Your task to perform on an android device: turn pop-ups on in chrome Image 0: 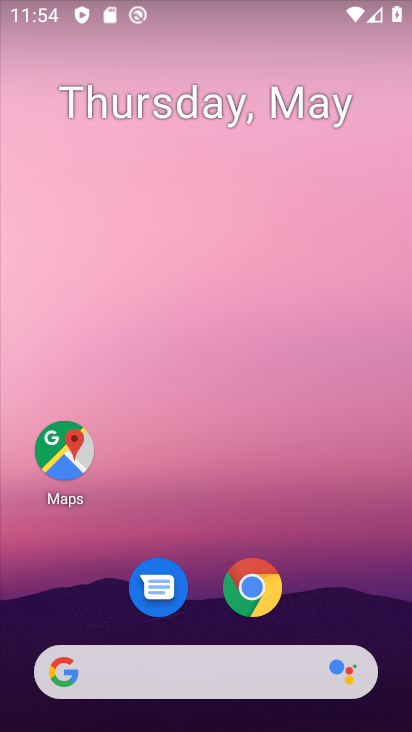
Step 0: click (256, 581)
Your task to perform on an android device: turn pop-ups on in chrome Image 1: 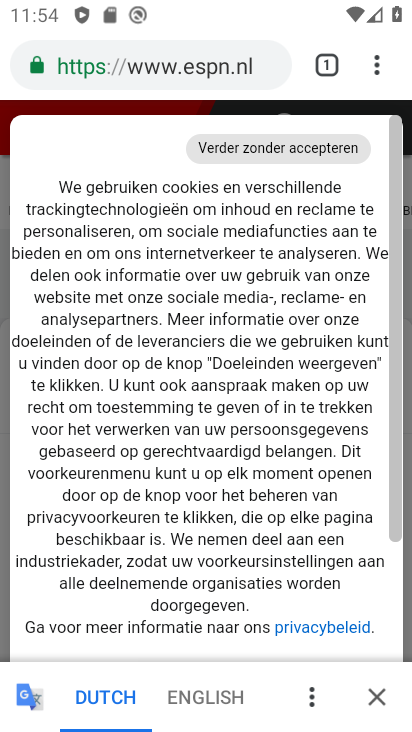
Step 1: drag from (377, 66) to (161, 632)
Your task to perform on an android device: turn pop-ups on in chrome Image 2: 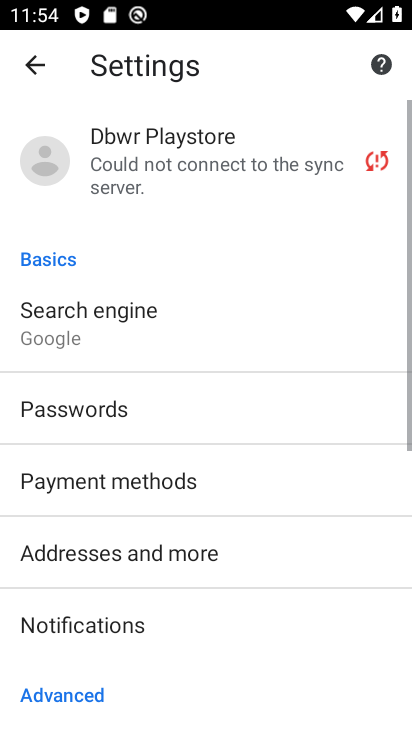
Step 2: drag from (165, 592) to (248, 122)
Your task to perform on an android device: turn pop-ups on in chrome Image 3: 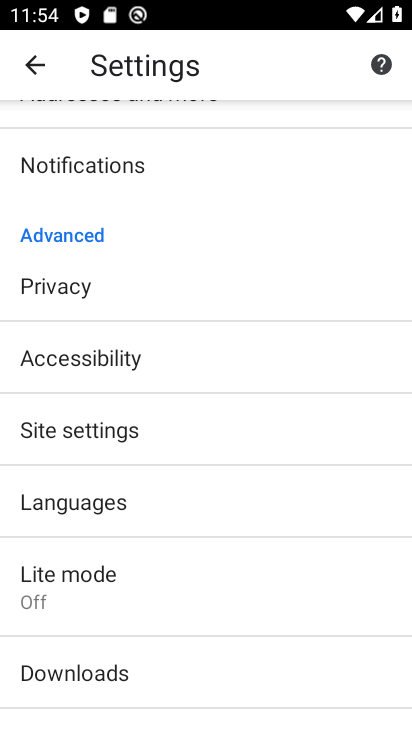
Step 3: click (91, 421)
Your task to perform on an android device: turn pop-ups on in chrome Image 4: 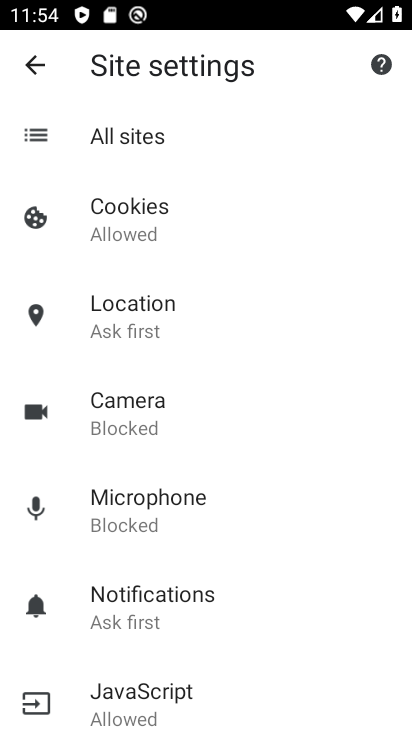
Step 4: drag from (175, 676) to (226, 334)
Your task to perform on an android device: turn pop-ups on in chrome Image 5: 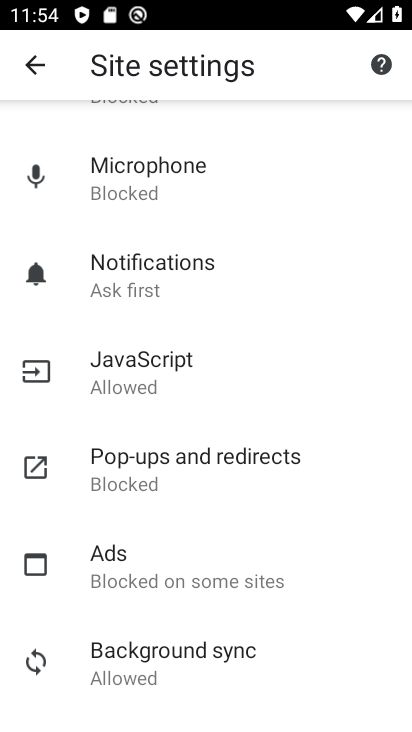
Step 5: click (140, 461)
Your task to perform on an android device: turn pop-ups on in chrome Image 6: 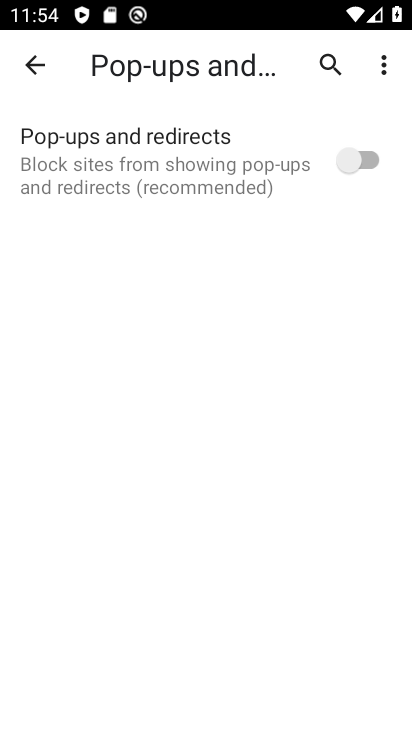
Step 6: click (364, 161)
Your task to perform on an android device: turn pop-ups on in chrome Image 7: 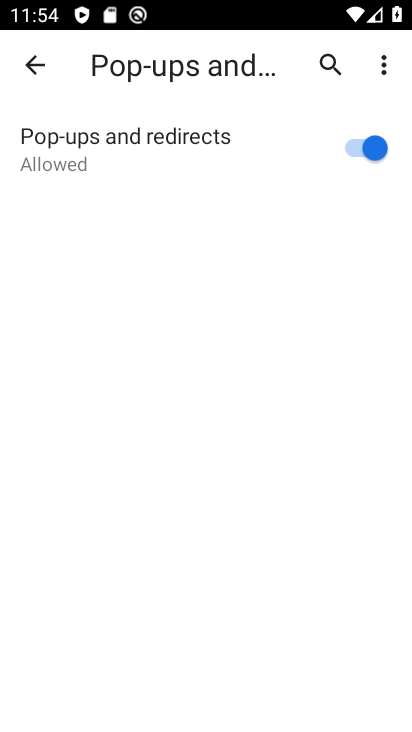
Step 7: task complete